Your task to perform on an android device: delete browsing data in the chrome app Image 0: 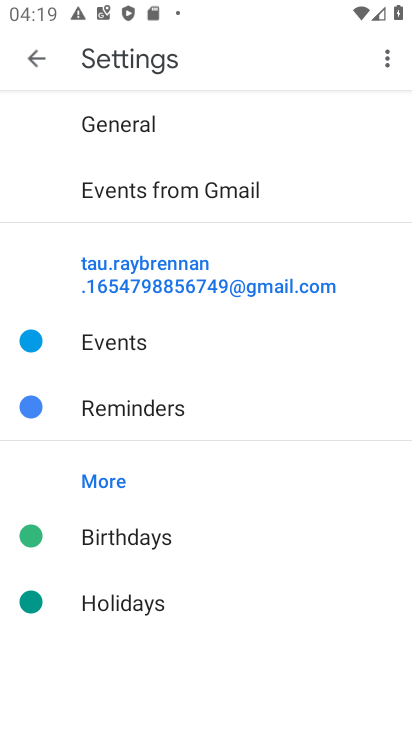
Step 0: drag from (281, 578) to (222, 357)
Your task to perform on an android device: delete browsing data in the chrome app Image 1: 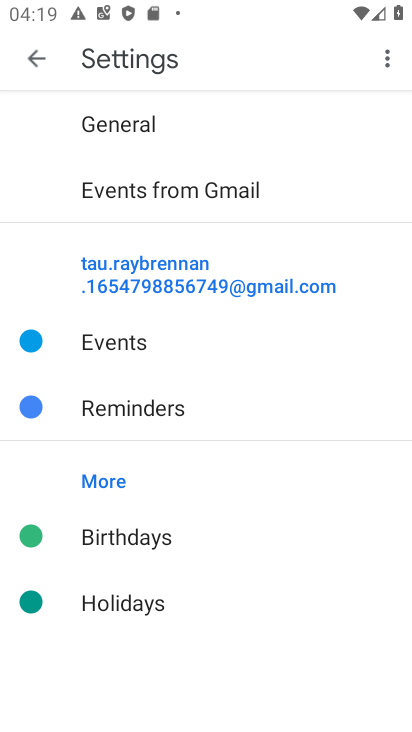
Step 1: press home button
Your task to perform on an android device: delete browsing data in the chrome app Image 2: 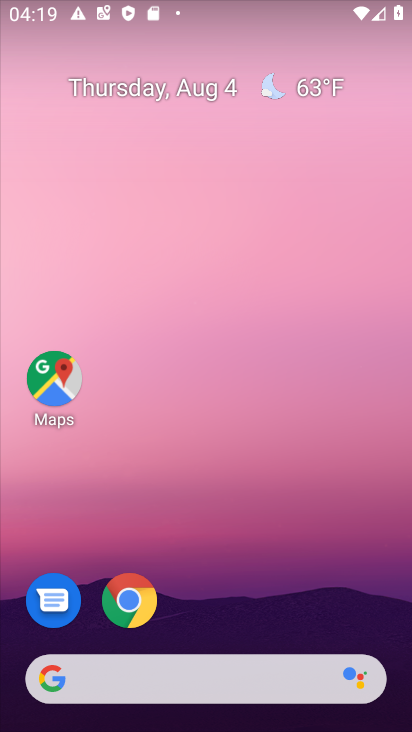
Step 2: drag from (273, 639) to (294, 158)
Your task to perform on an android device: delete browsing data in the chrome app Image 3: 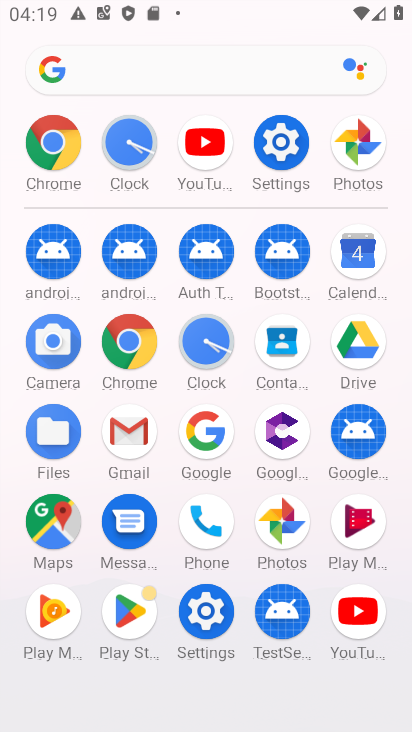
Step 3: click (126, 337)
Your task to perform on an android device: delete browsing data in the chrome app Image 4: 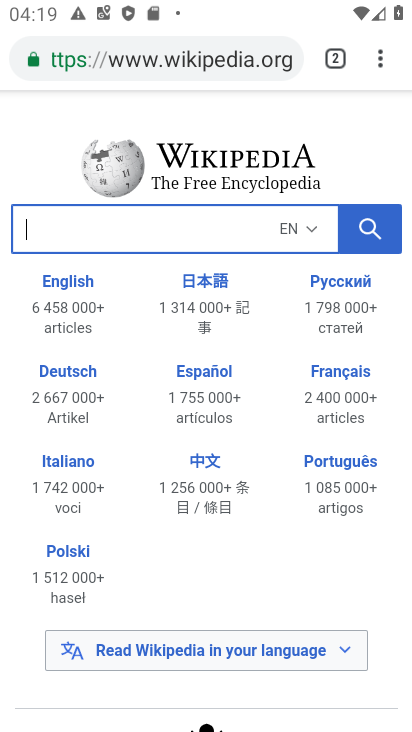
Step 4: task complete